Your task to perform on an android device: Go to Reddit.com Image 0: 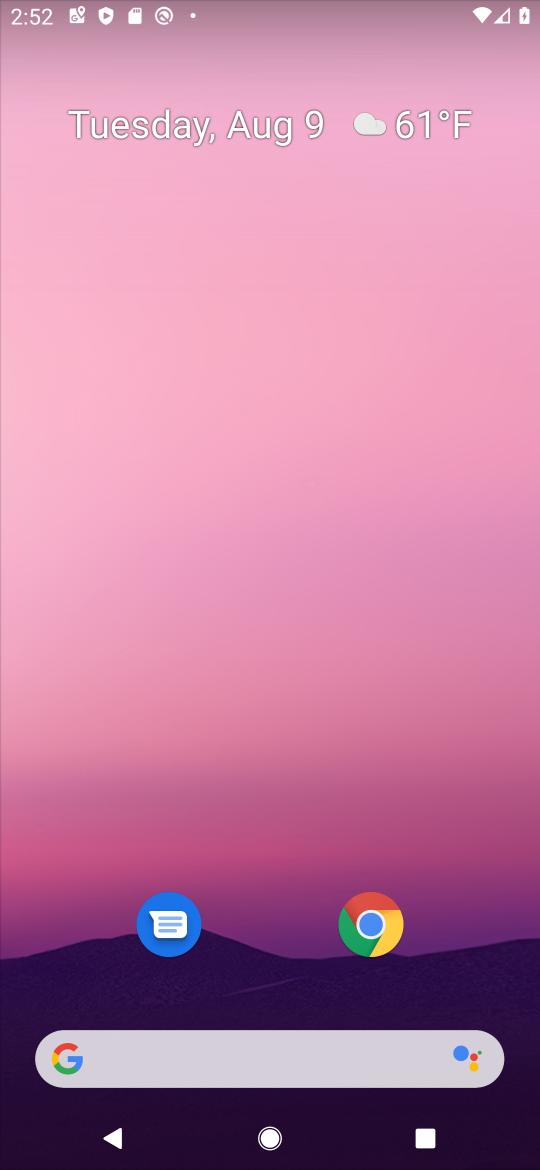
Step 0: click (292, 1072)
Your task to perform on an android device: Go to Reddit.com Image 1: 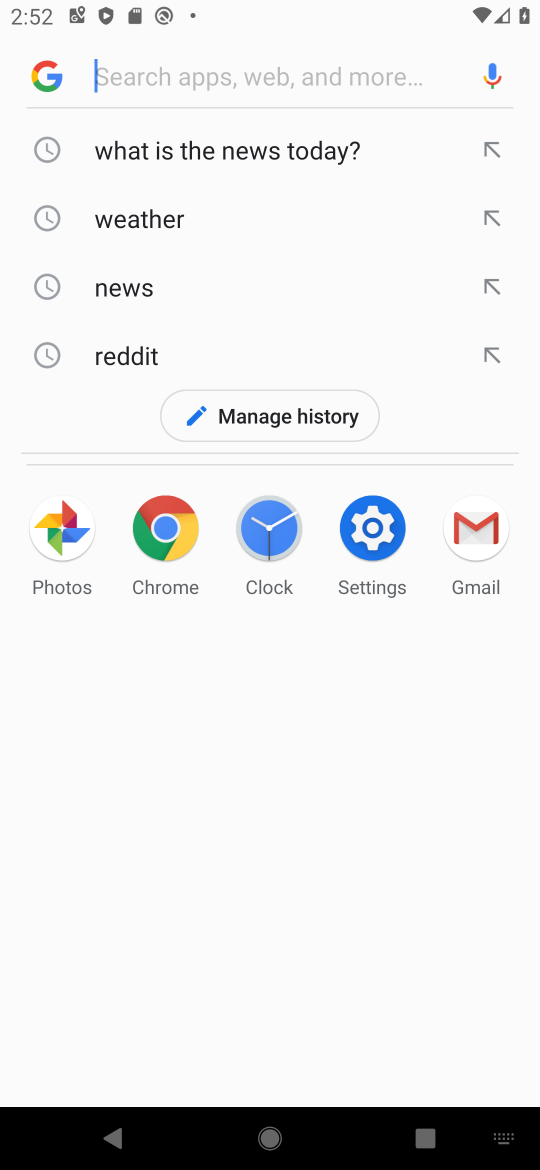
Step 1: type "reddit.com"
Your task to perform on an android device: Go to Reddit.com Image 2: 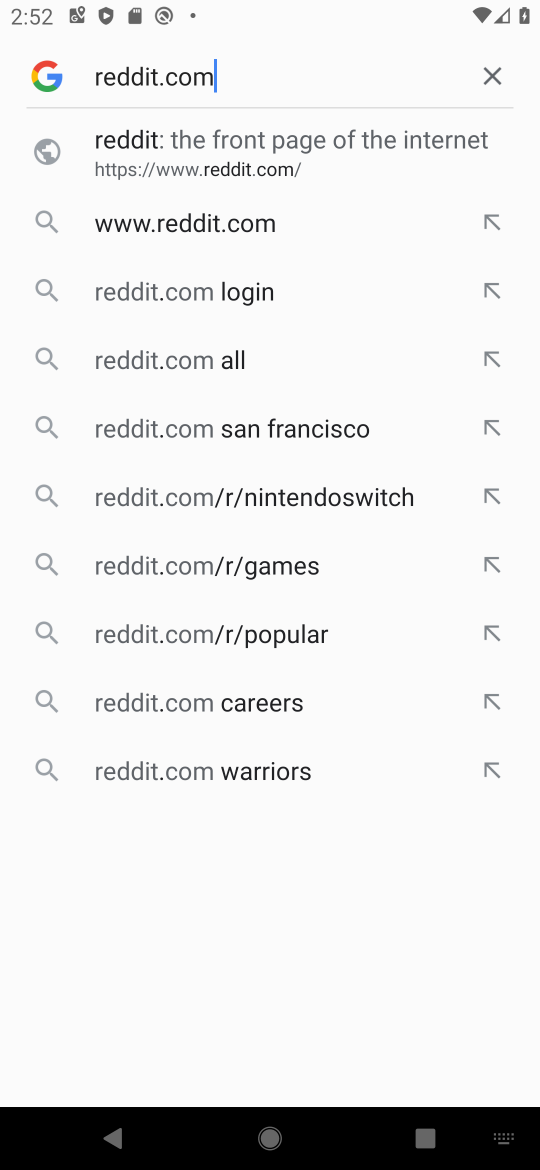
Step 2: click (240, 153)
Your task to perform on an android device: Go to Reddit.com Image 3: 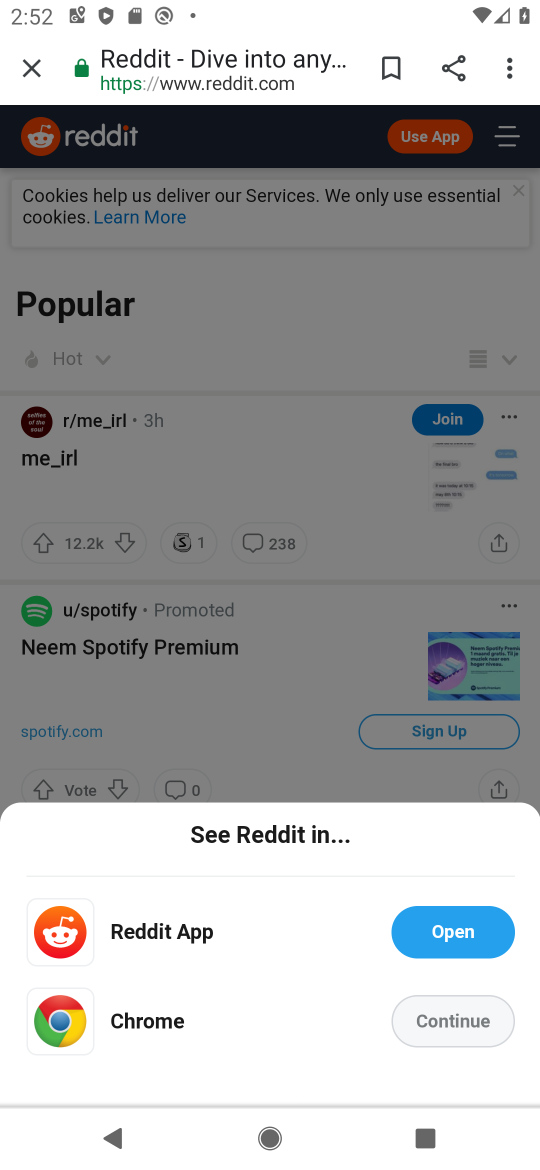
Step 3: click (462, 1022)
Your task to perform on an android device: Go to Reddit.com Image 4: 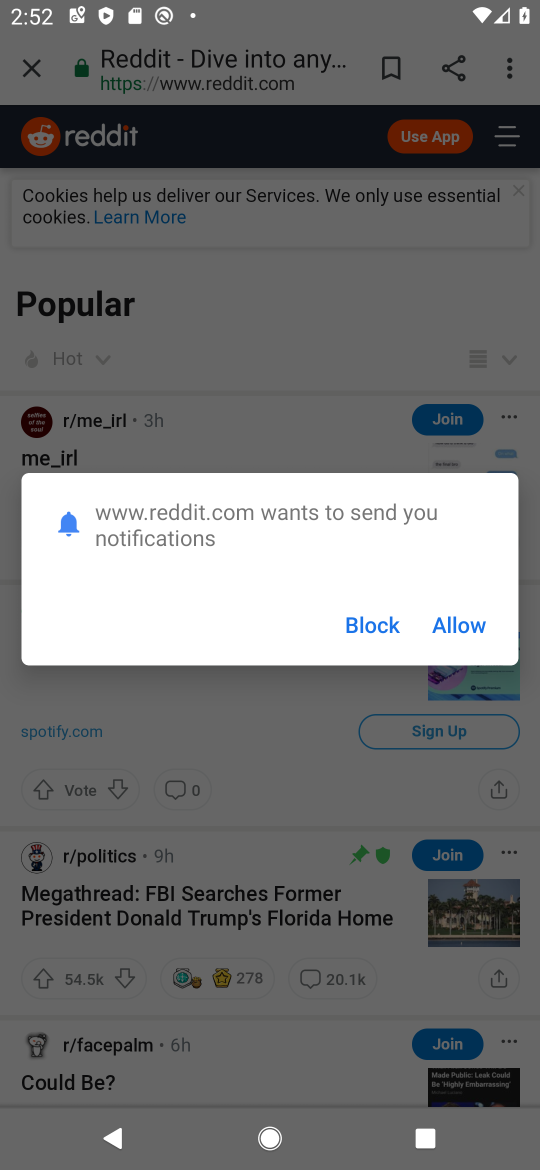
Step 4: click (474, 629)
Your task to perform on an android device: Go to Reddit.com Image 5: 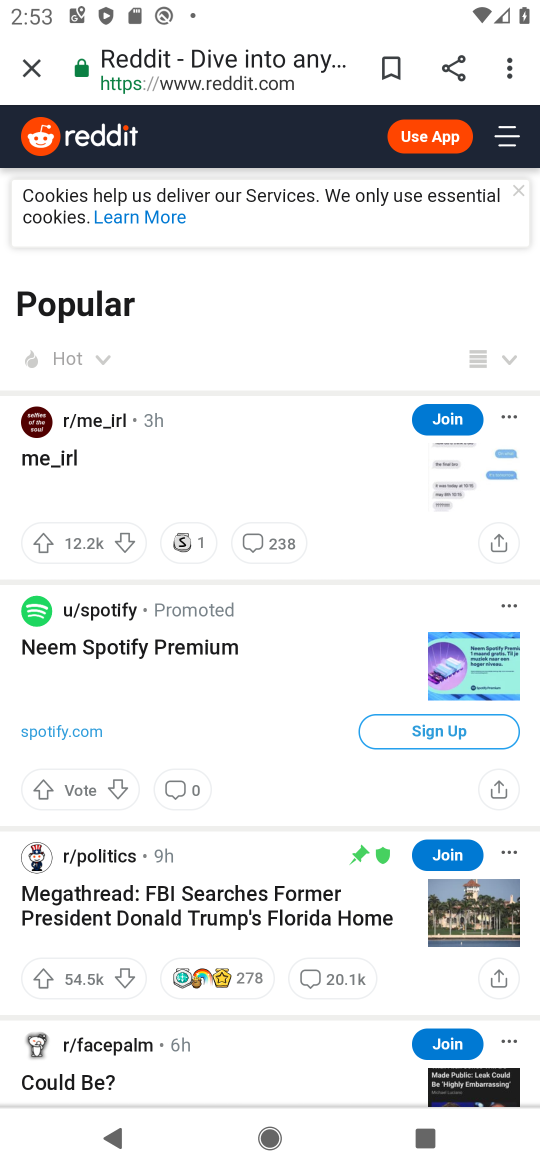
Step 5: task complete